Your task to perform on an android device: Go to notification settings Image 0: 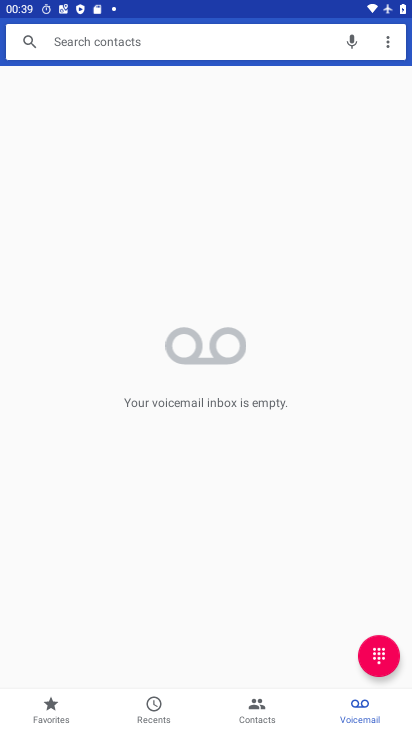
Step 0: press home button
Your task to perform on an android device: Go to notification settings Image 1: 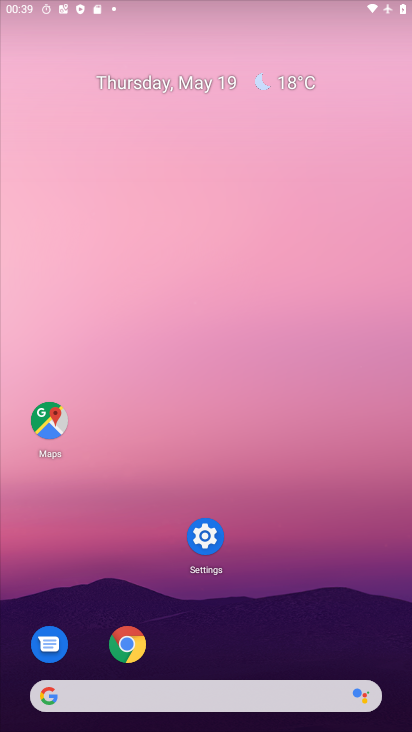
Step 1: drag from (306, 511) to (283, 148)
Your task to perform on an android device: Go to notification settings Image 2: 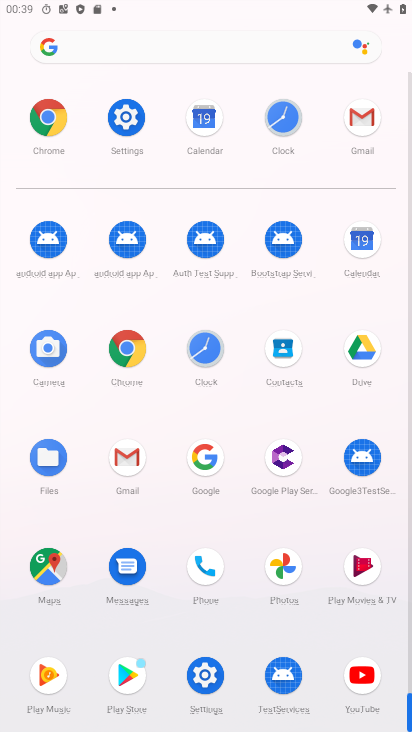
Step 2: click (135, 112)
Your task to perform on an android device: Go to notification settings Image 3: 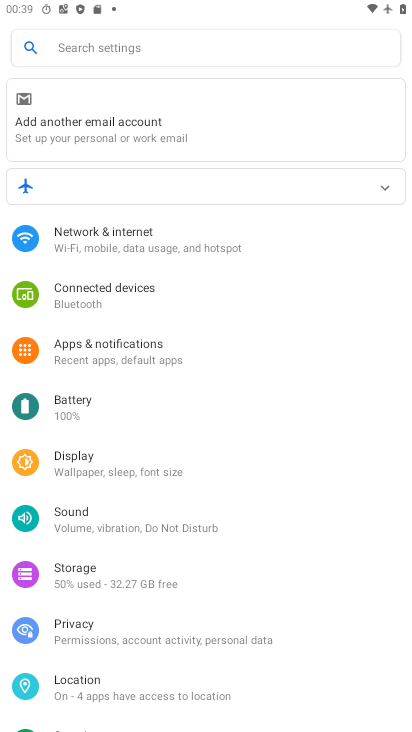
Step 3: click (123, 344)
Your task to perform on an android device: Go to notification settings Image 4: 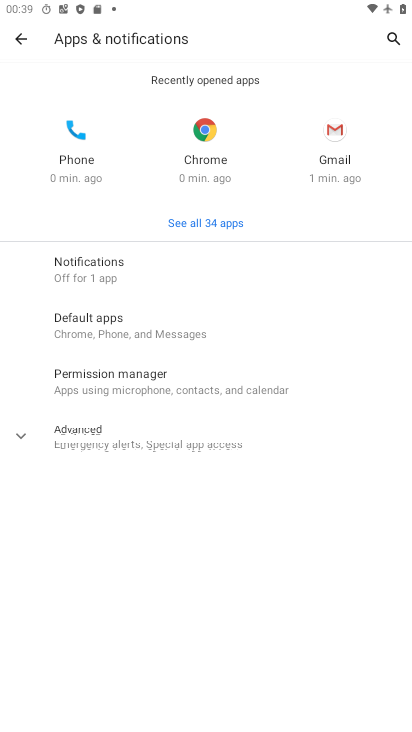
Step 4: click (96, 261)
Your task to perform on an android device: Go to notification settings Image 5: 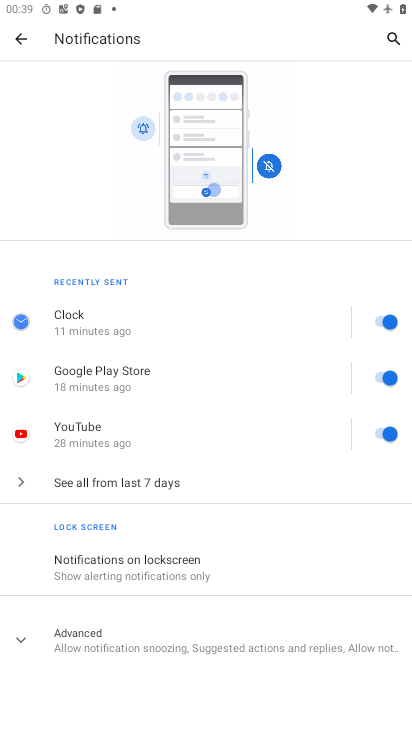
Step 5: task complete